Your task to perform on an android device: Search for "logitech g pro" on bestbuy.com, select the first entry, add it to the cart, then select checkout. Image 0: 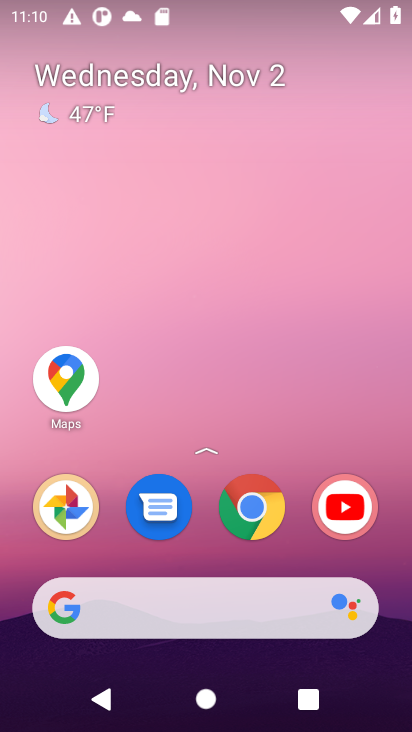
Step 0: click (201, 621)
Your task to perform on an android device: Search for "logitech g pro" on bestbuy.com, select the first entry, add it to the cart, then select checkout. Image 1: 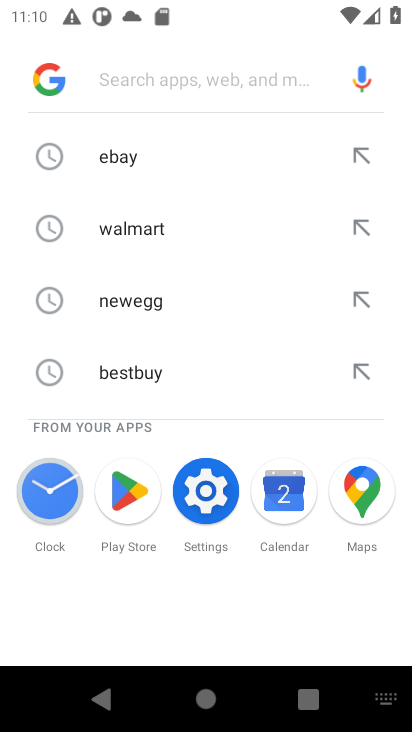
Step 1: click (222, 374)
Your task to perform on an android device: Search for "logitech g pro" on bestbuy.com, select the first entry, add it to the cart, then select checkout. Image 2: 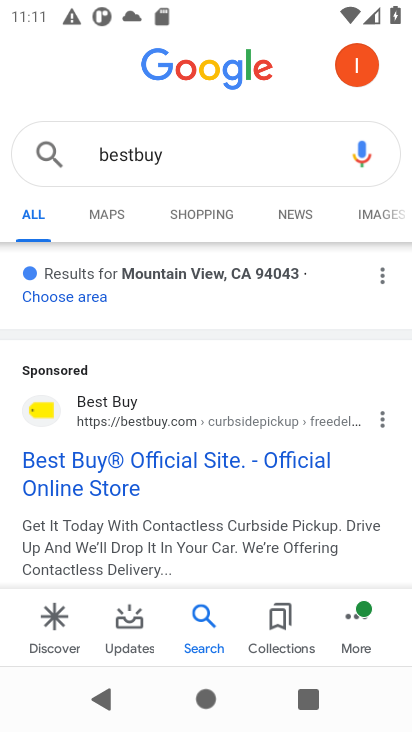
Step 2: click (139, 464)
Your task to perform on an android device: Search for "logitech g pro" on bestbuy.com, select the first entry, add it to the cart, then select checkout. Image 3: 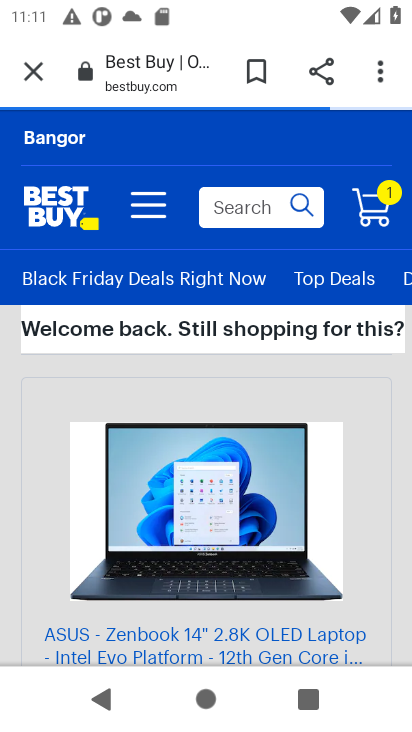
Step 3: click (248, 200)
Your task to perform on an android device: Search for "logitech g pro" on bestbuy.com, select the first entry, add it to the cart, then select checkout. Image 4: 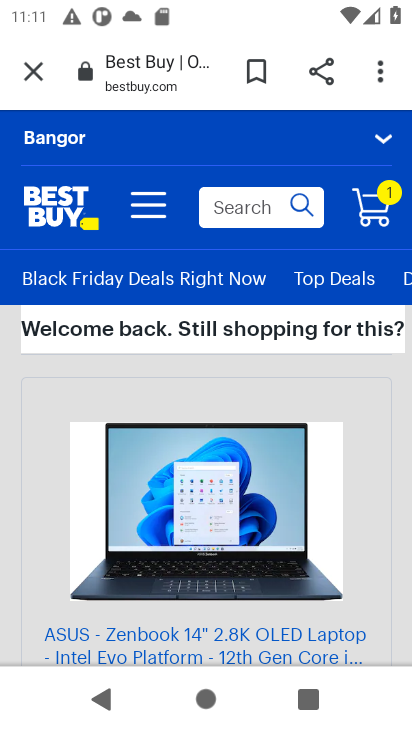
Step 4: type "logitech gpro"
Your task to perform on an android device: Search for "logitech g pro" on bestbuy.com, select the first entry, add it to the cart, then select checkout. Image 5: 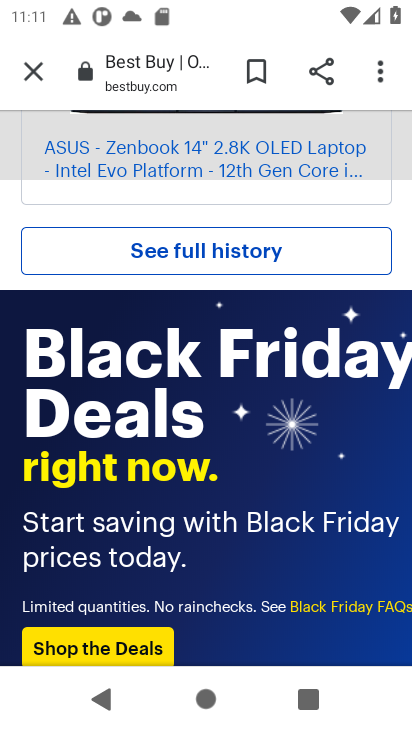
Step 5: task complete